Your task to perform on an android device: open app "Google Photos" Image 0: 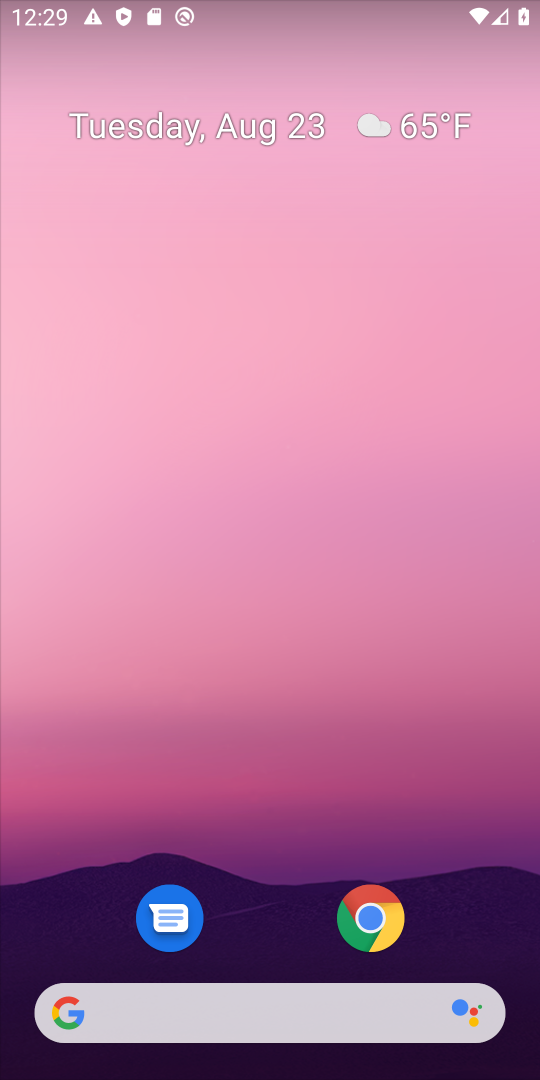
Step 0: drag from (269, 952) to (239, 77)
Your task to perform on an android device: open app "Google Photos" Image 1: 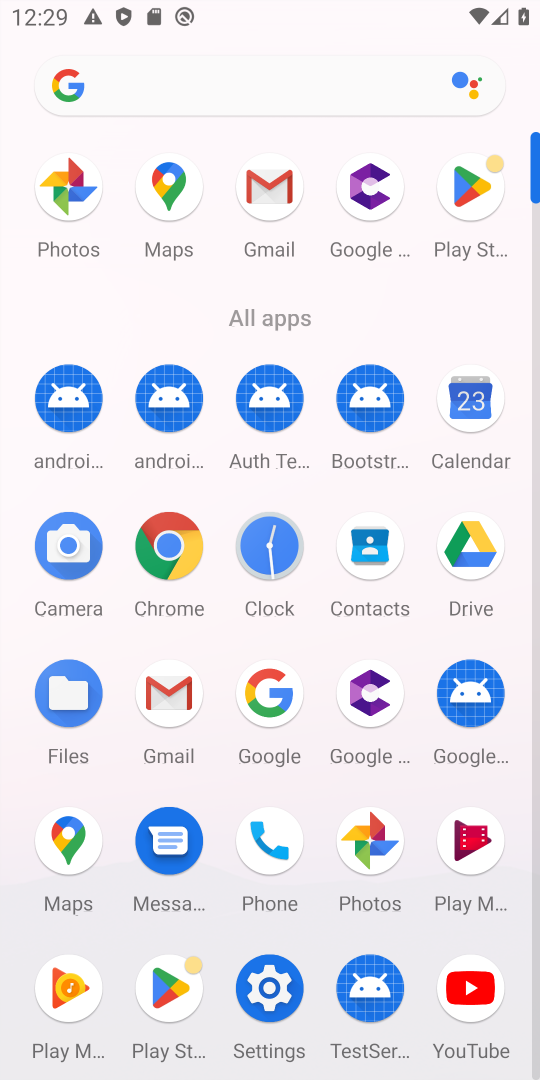
Step 1: click (465, 180)
Your task to perform on an android device: open app "Google Photos" Image 2: 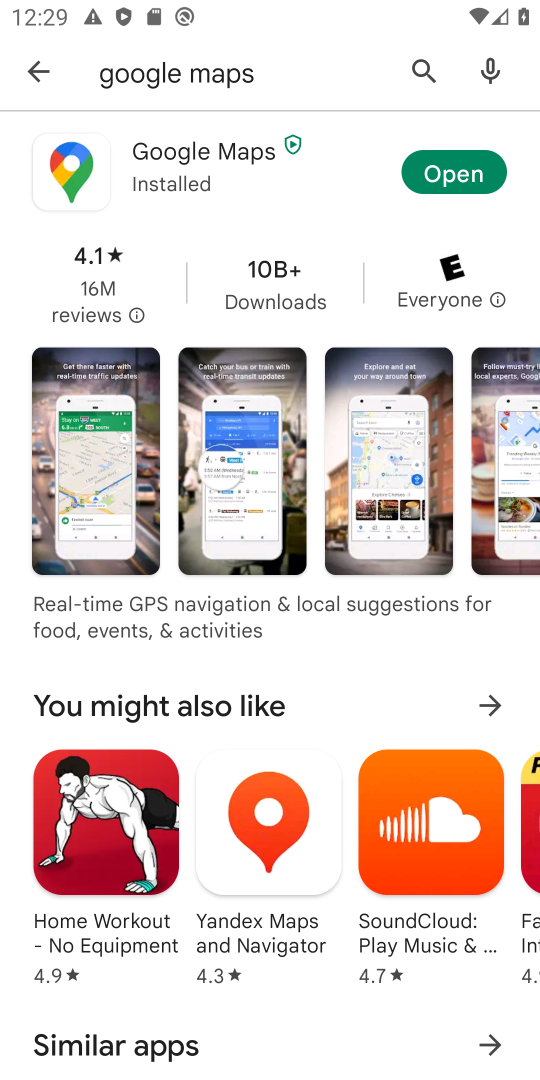
Step 2: click (425, 47)
Your task to perform on an android device: open app "Google Photos" Image 3: 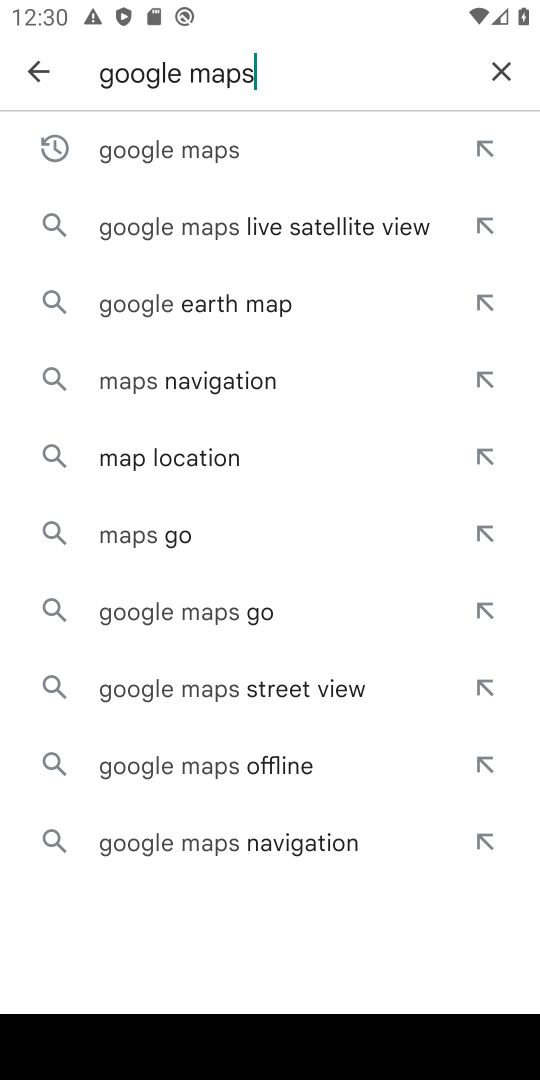
Step 3: click (505, 63)
Your task to perform on an android device: open app "Google Photos" Image 4: 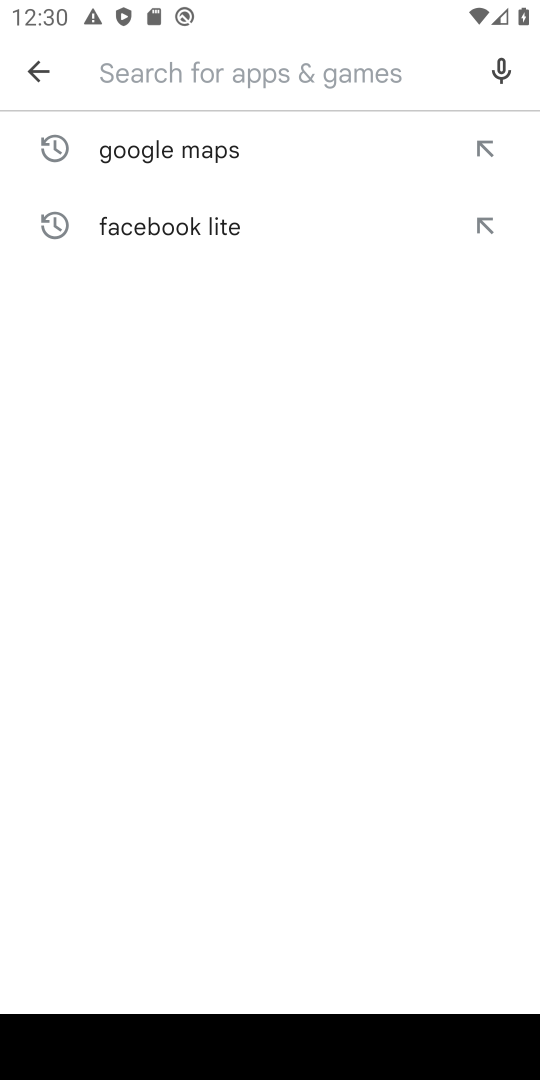
Step 4: type "Google Photos"
Your task to perform on an android device: open app "Google Photos" Image 5: 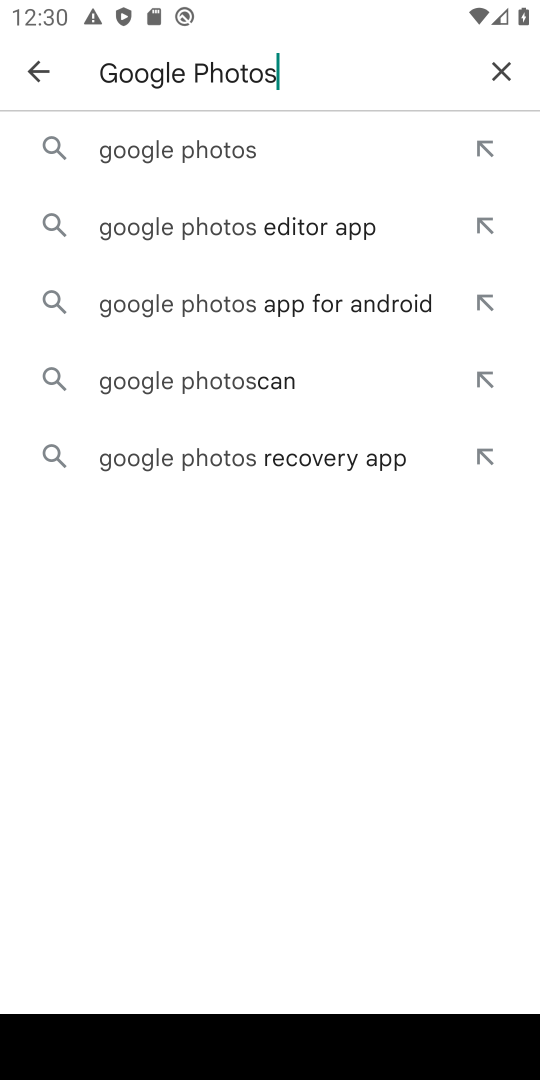
Step 5: click (177, 151)
Your task to perform on an android device: open app "Google Photos" Image 6: 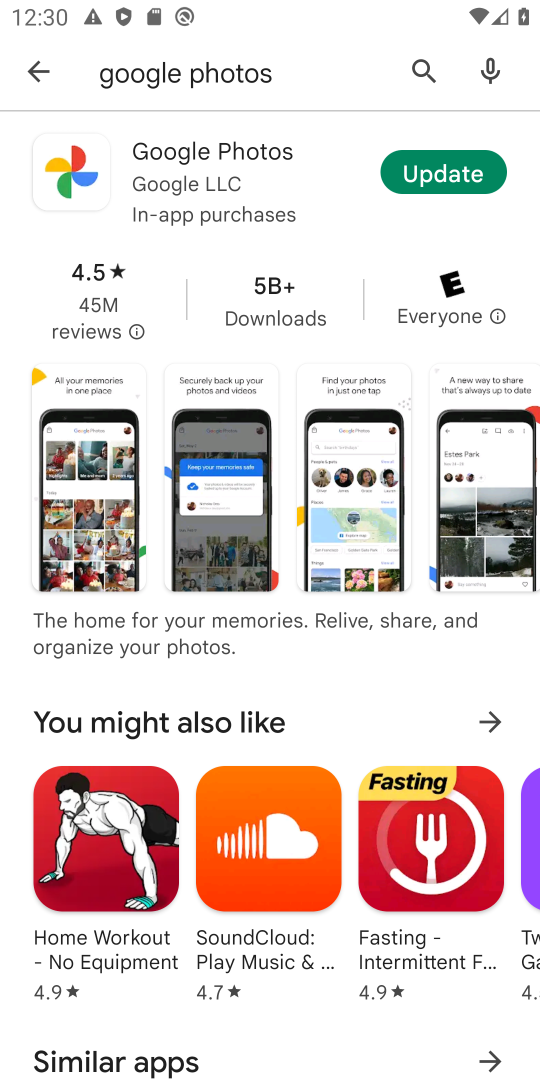
Step 6: click (418, 176)
Your task to perform on an android device: open app "Google Photos" Image 7: 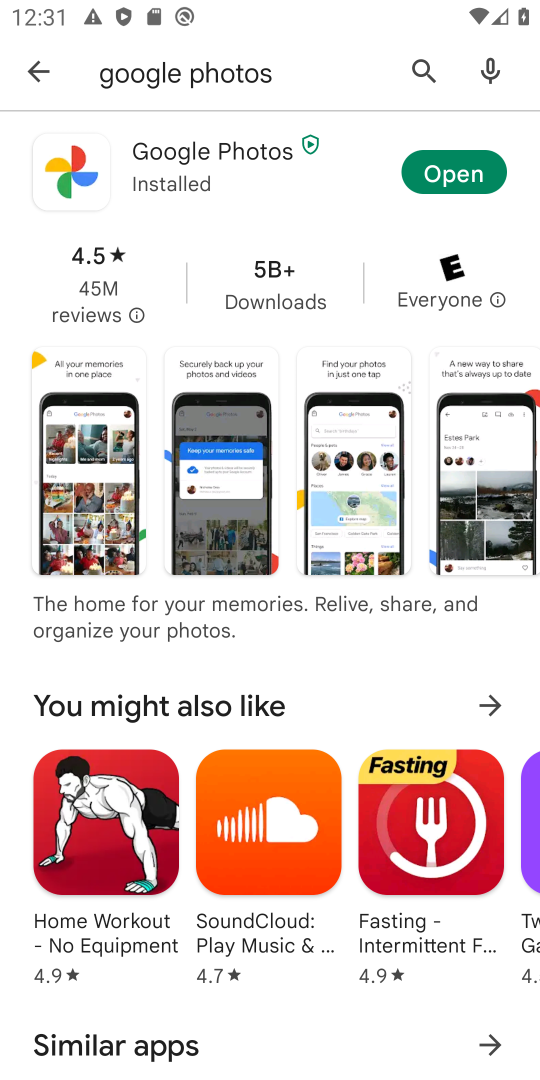
Step 7: click (450, 175)
Your task to perform on an android device: open app "Google Photos" Image 8: 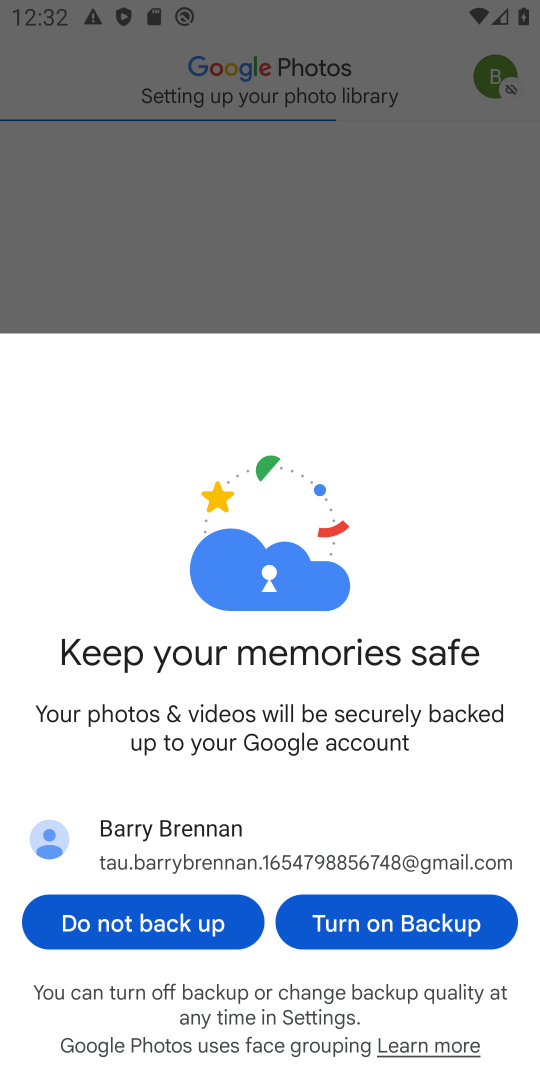
Step 8: task complete